Your task to perform on an android device: Open Maps and search for coffee Image 0: 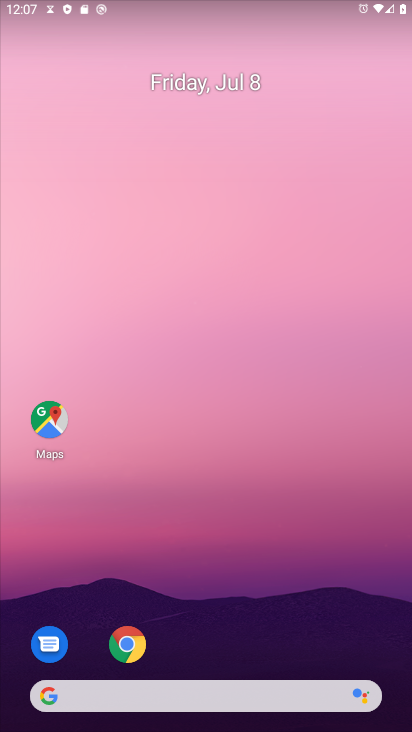
Step 0: click (53, 426)
Your task to perform on an android device: Open Maps and search for coffee Image 1: 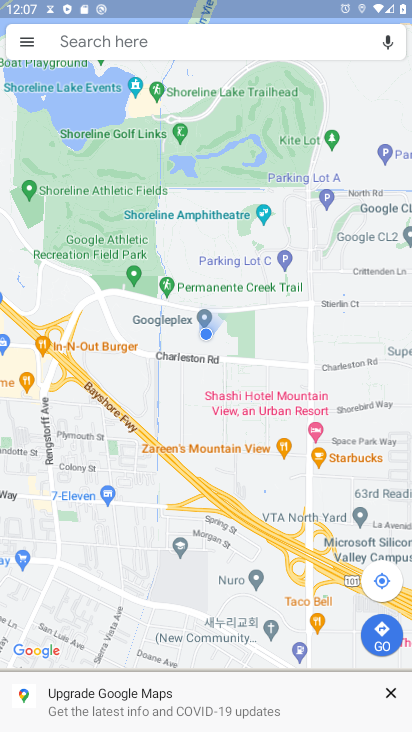
Step 1: click (200, 45)
Your task to perform on an android device: Open Maps and search for coffee Image 2: 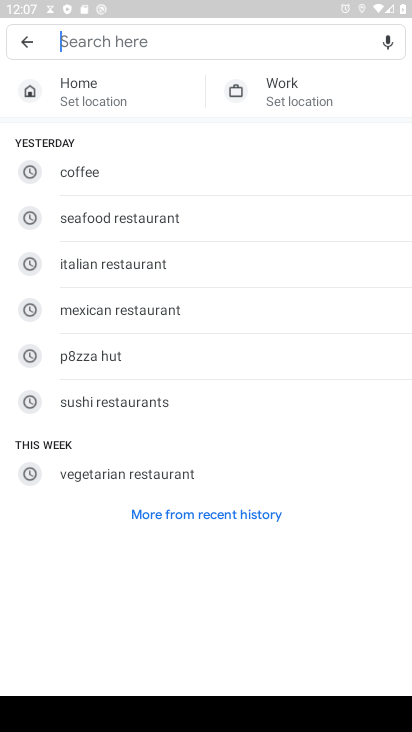
Step 2: type "coffee"
Your task to perform on an android device: Open Maps and search for coffee Image 3: 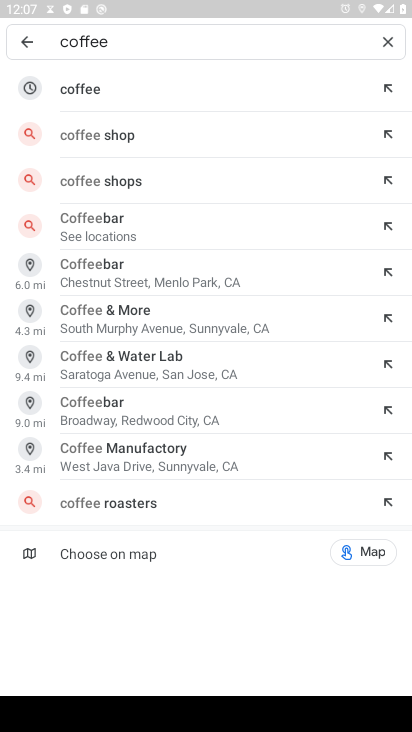
Step 3: click (104, 89)
Your task to perform on an android device: Open Maps and search for coffee Image 4: 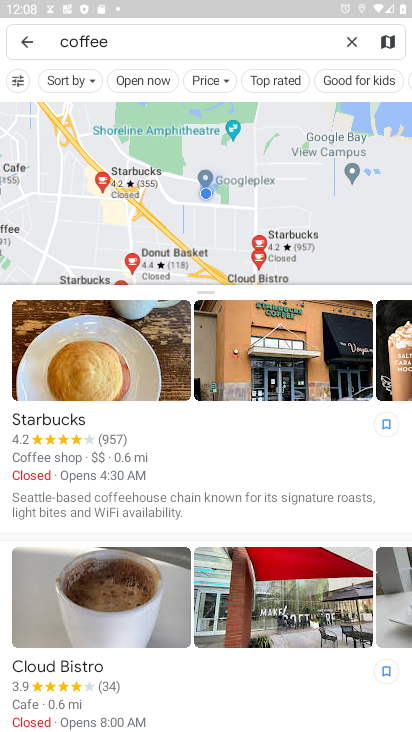
Step 4: task complete